Your task to perform on an android device: turn notification dots on Image 0: 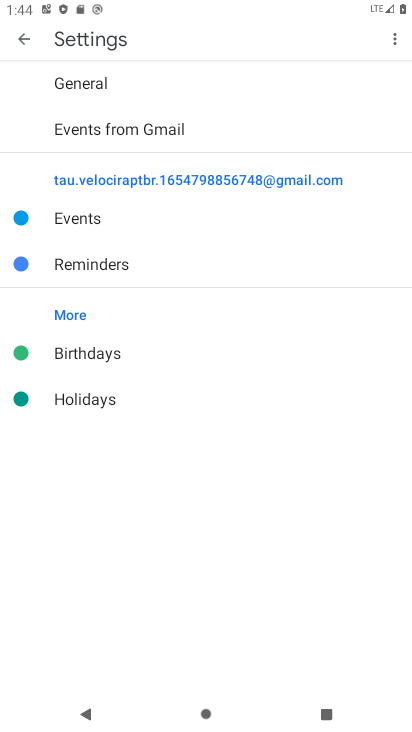
Step 0: press home button
Your task to perform on an android device: turn notification dots on Image 1: 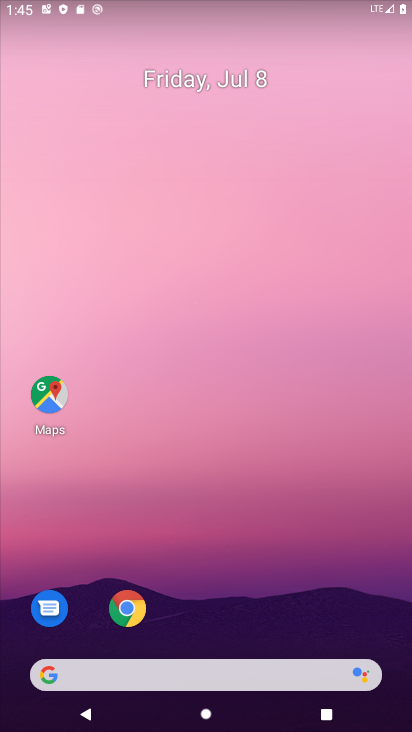
Step 1: drag from (363, 622) to (324, 112)
Your task to perform on an android device: turn notification dots on Image 2: 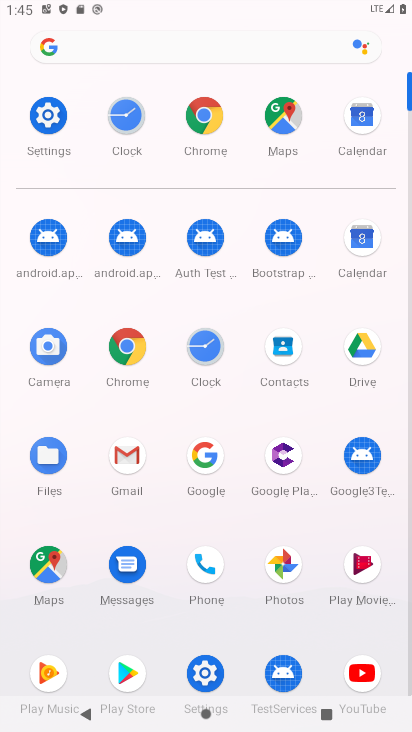
Step 2: click (204, 673)
Your task to perform on an android device: turn notification dots on Image 3: 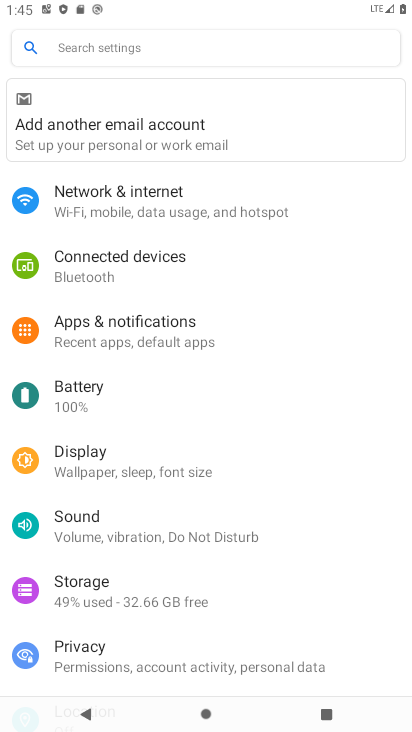
Step 3: click (103, 342)
Your task to perform on an android device: turn notification dots on Image 4: 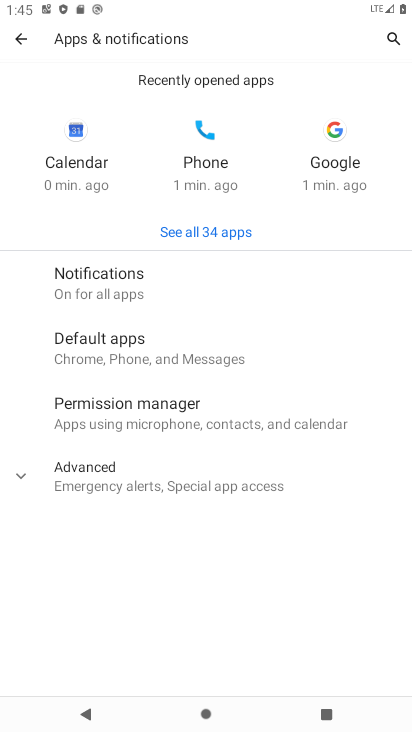
Step 4: click (103, 282)
Your task to perform on an android device: turn notification dots on Image 5: 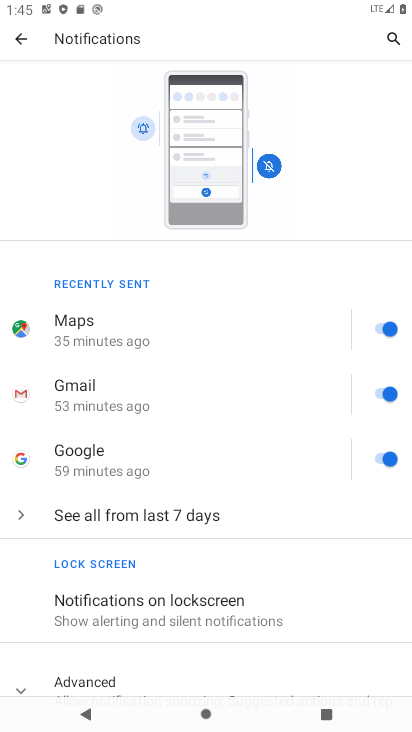
Step 5: drag from (280, 640) to (293, 172)
Your task to perform on an android device: turn notification dots on Image 6: 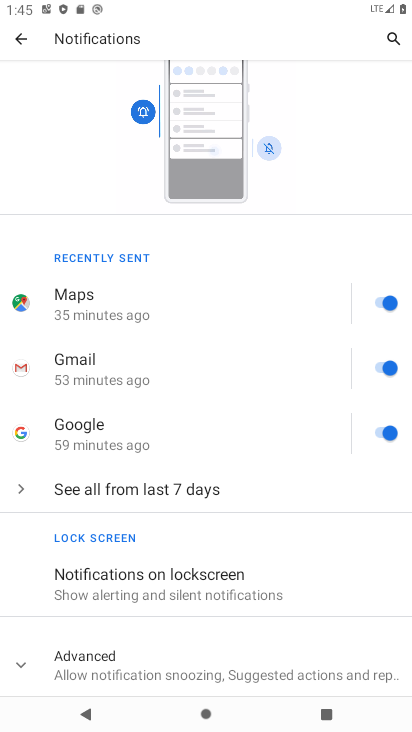
Step 6: click (22, 661)
Your task to perform on an android device: turn notification dots on Image 7: 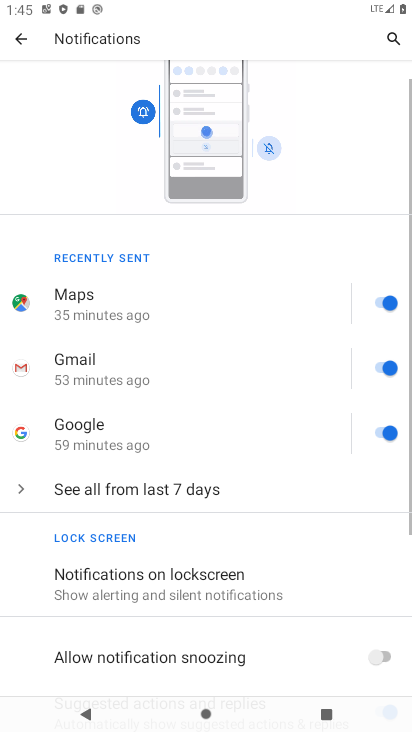
Step 7: drag from (356, 632) to (306, 279)
Your task to perform on an android device: turn notification dots on Image 8: 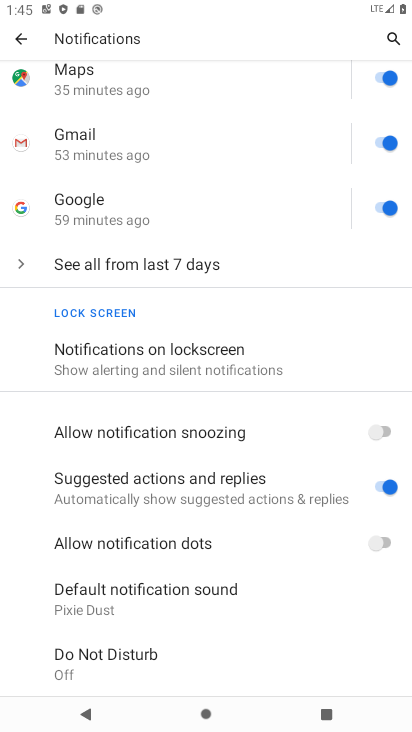
Step 8: click (387, 544)
Your task to perform on an android device: turn notification dots on Image 9: 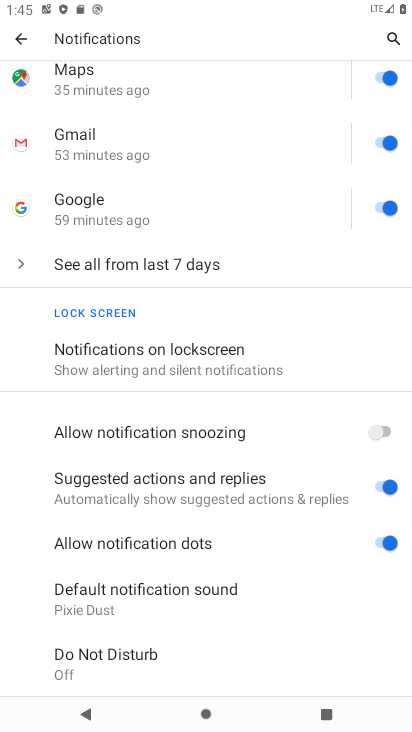
Step 9: task complete